Your task to perform on an android device: Go to Amazon Image 0: 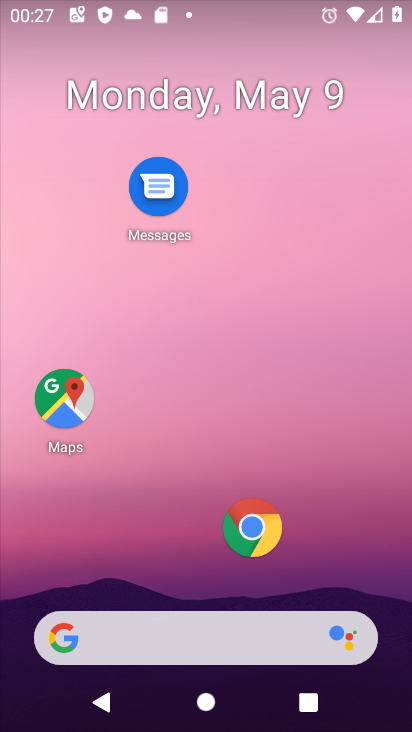
Step 0: click (252, 530)
Your task to perform on an android device: Go to Amazon Image 1: 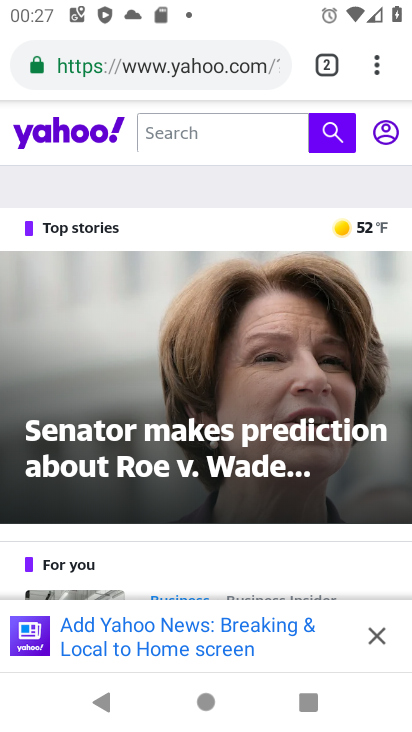
Step 1: press back button
Your task to perform on an android device: Go to Amazon Image 2: 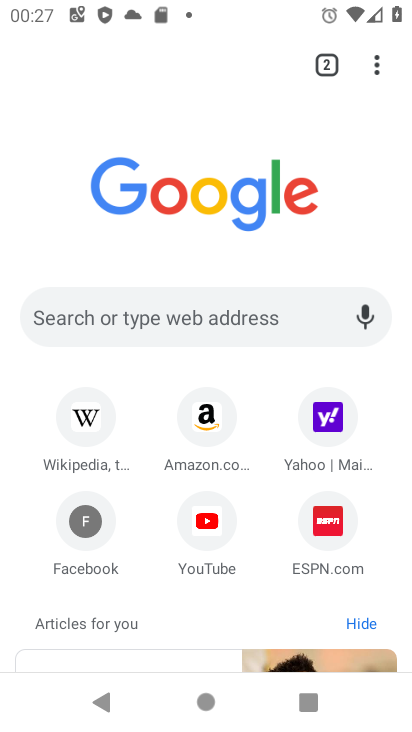
Step 2: click (211, 411)
Your task to perform on an android device: Go to Amazon Image 3: 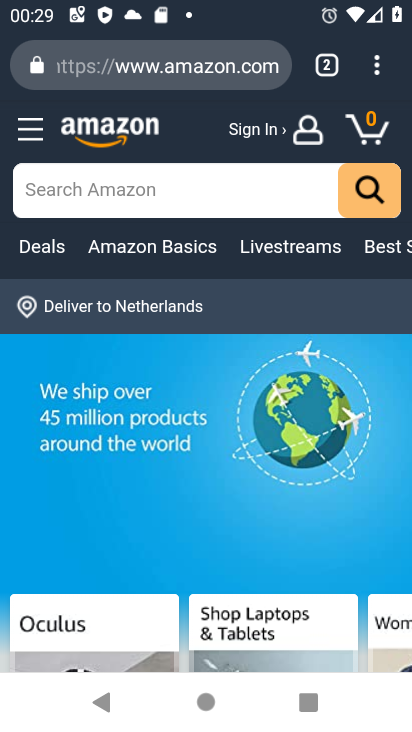
Step 3: task complete